Your task to perform on an android device: Do I have any events this weekend? Image 0: 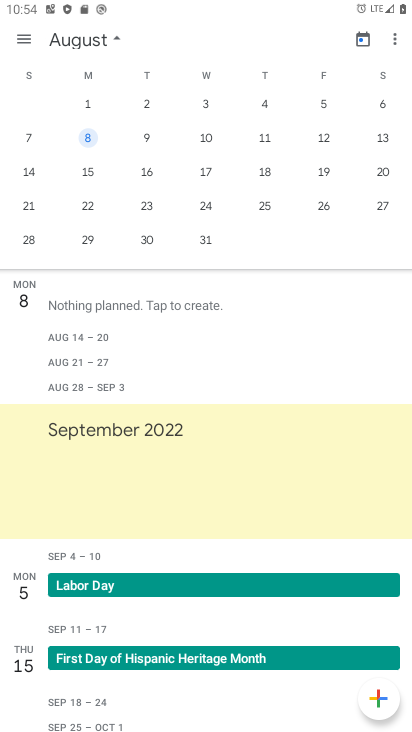
Step 0: drag from (243, 468) to (268, 170)
Your task to perform on an android device: Do I have any events this weekend? Image 1: 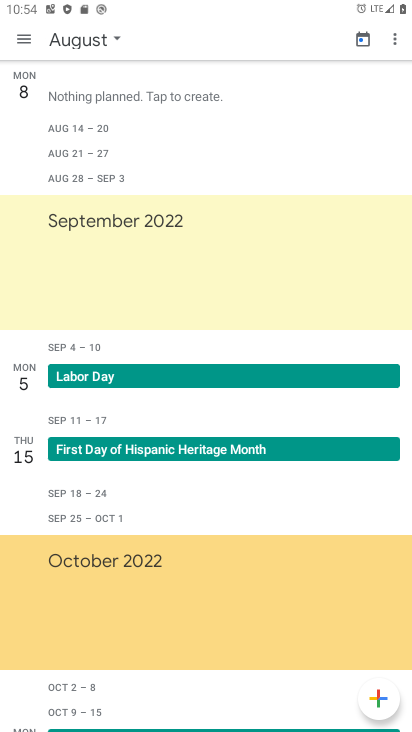
Step 1: task complete